Your task to perform on an android device: Show me the alarms in the clock app Image 0: 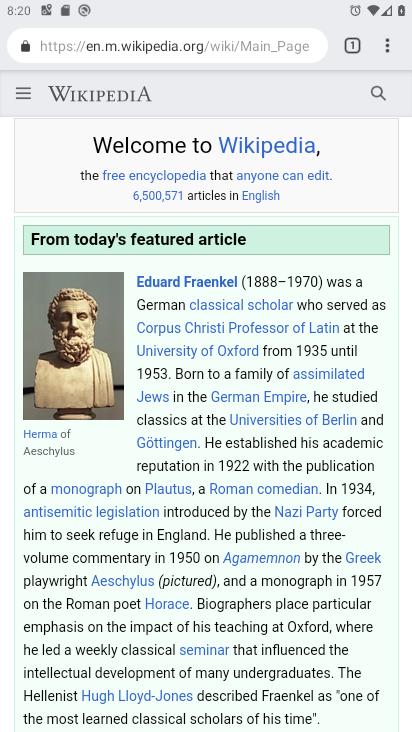
Step 0: press home button
Your task to perform on an android device: Show me the alarms in the clock app Image 1: 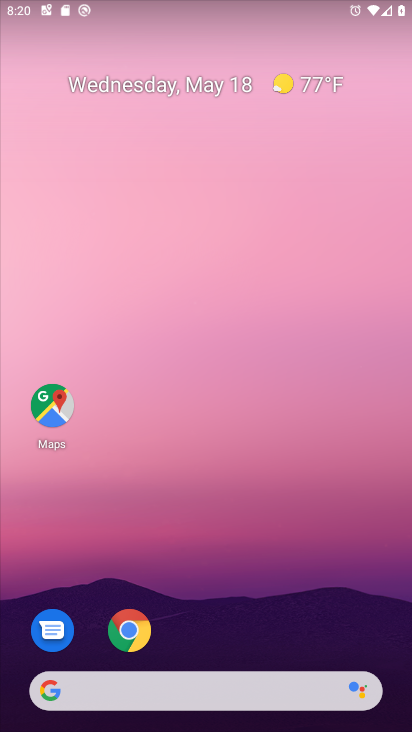
Step 1: drag from (260, 548) to (268, 157)
Your task to perform on an android device: Show me the alarms in the clock app Image 2: 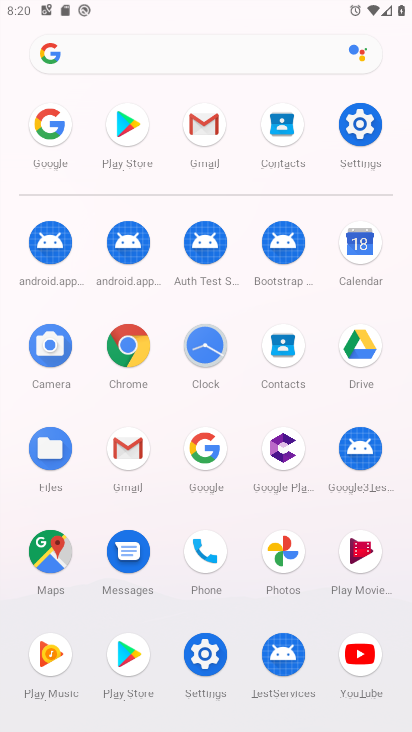
Step 2: click (207, 343)
Your task to perform on an android device: Show me the alarms in the clock app Image 3: 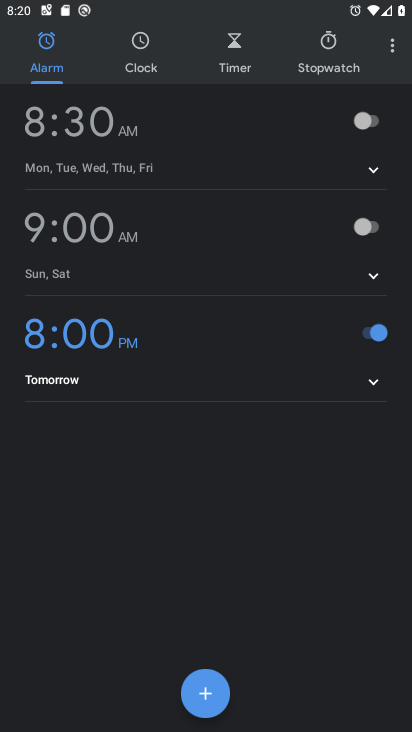
Step 3: task complete